Your task to perform on an android device: change timer sound Image 0: 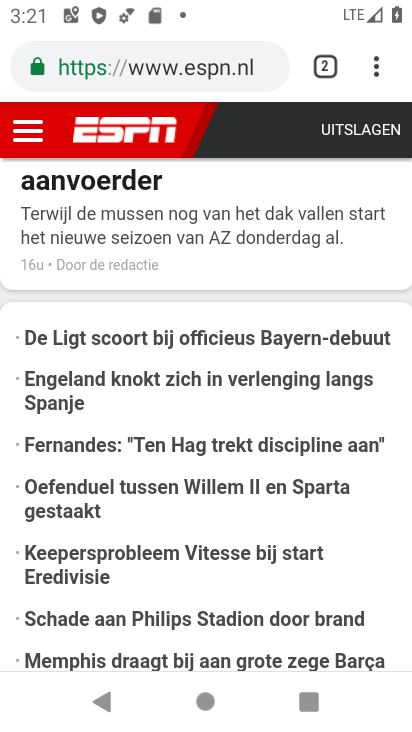
Step 0: press home button
Your task to perform on an android device: change timer sound Image 1: 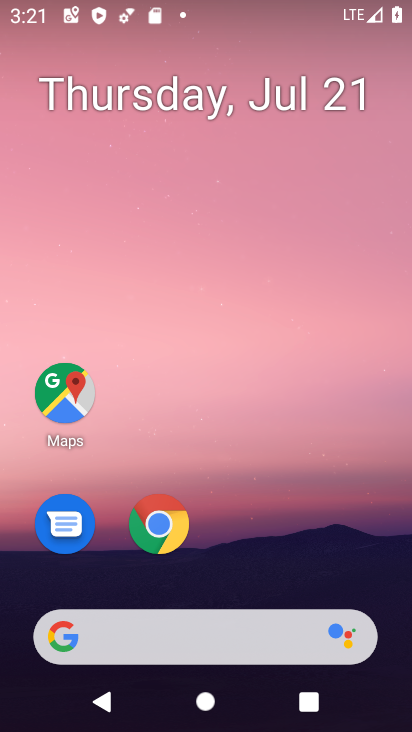
Step 1: drag from (286, 531) to (311, 0)
Your task to perform on an android device: change timer sound Image 2: 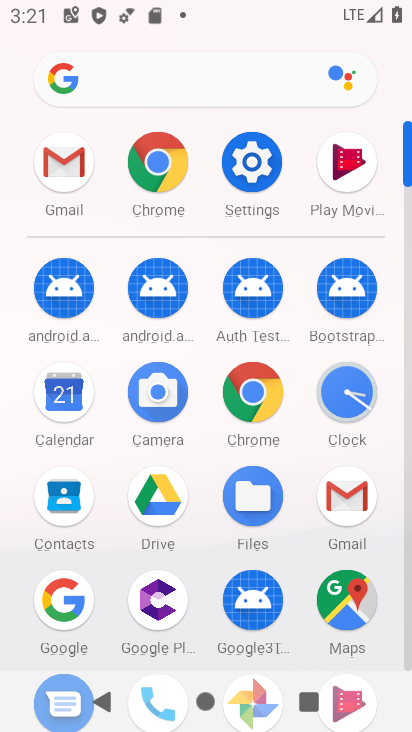
Step 2: click (255, 154)
Your task to perform on an android device: change timer sound Image 3: 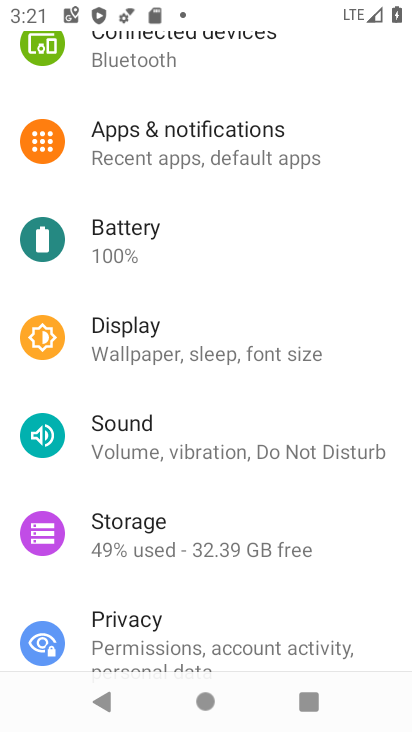
Step 3: press home button
Your task to perform on an android device: change timer sound Image 4: 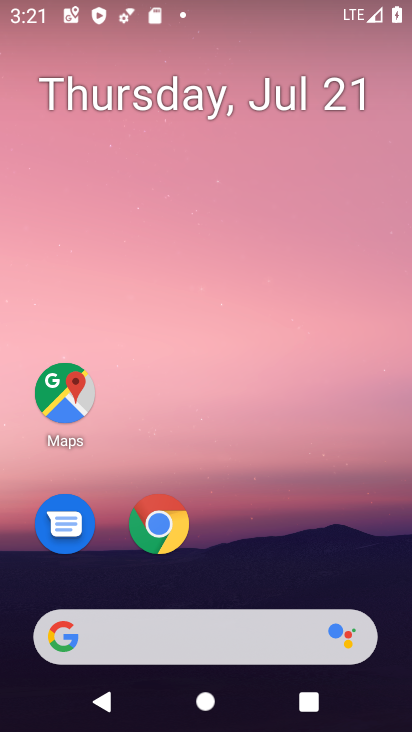
Step 4: drag from (317, 547) to (376, 56)
Your task to perform on an android device: change timer sound Image 5: 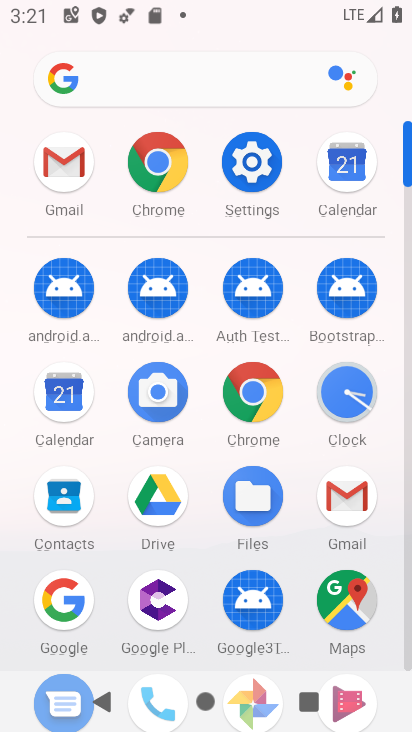
Step 5: click (344, 392)
Your task to perform on an android device: change timer sound Image 6: 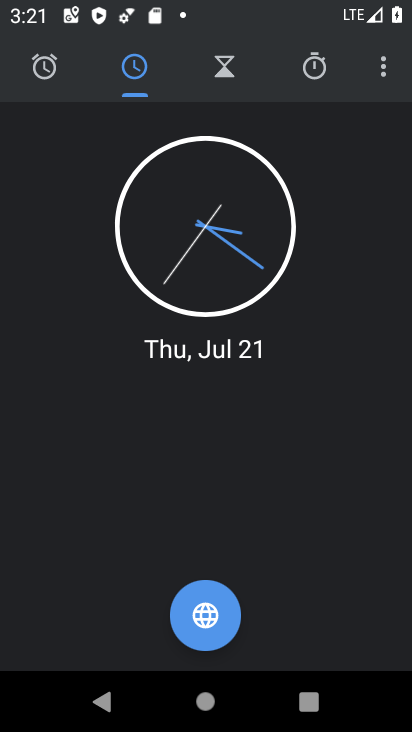
Step 6: click (382, 65)
Your task to perform on an android device: change timer sound Image 7: 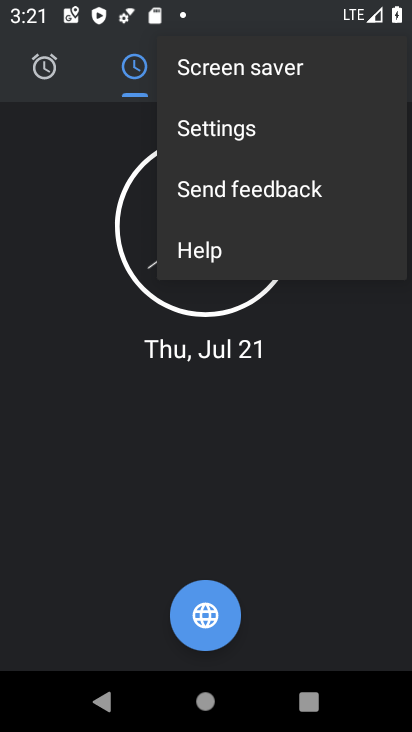
Step 7: click (243, 135)
Your task to perform on an android device: change timer sound Image 8: 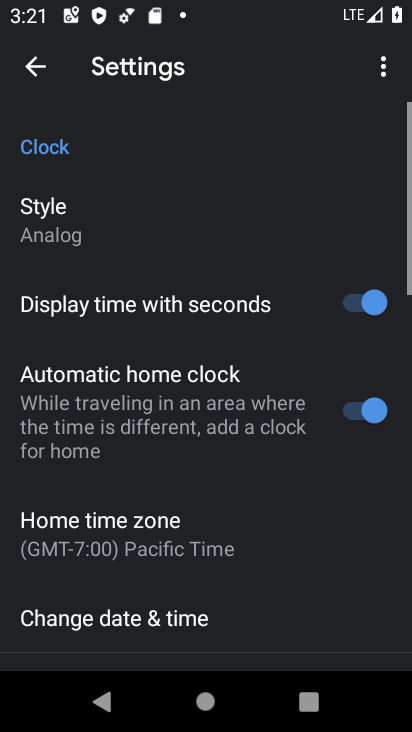
Step 8: drag from (223, 522) to (306, 7)
Your task to perform on an android device: change timer sound Image 9: 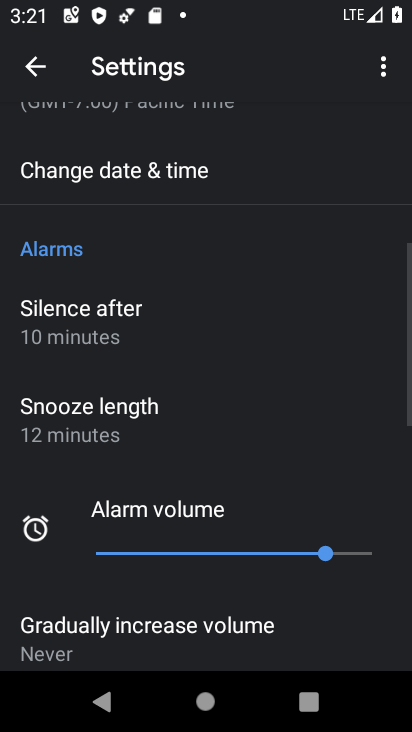
Step 9: drag from (239, 433) to (297, 2)
Your task to perform on an android device: change timer sound Image 10: 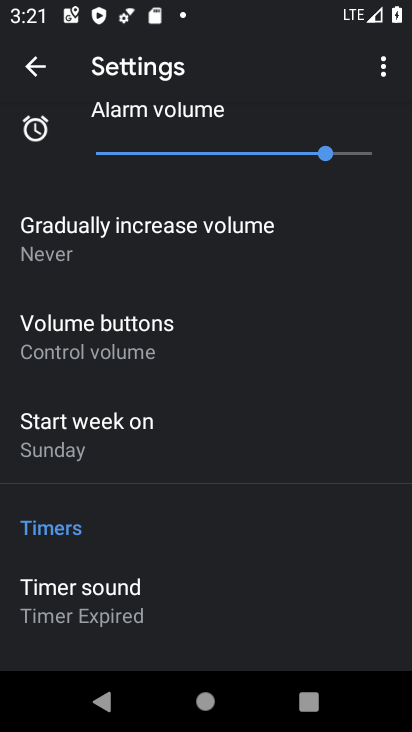
Step 10: drag from (184, 539) to (242, 176)
Your task to perform on an android device: change timer sound Image 11: 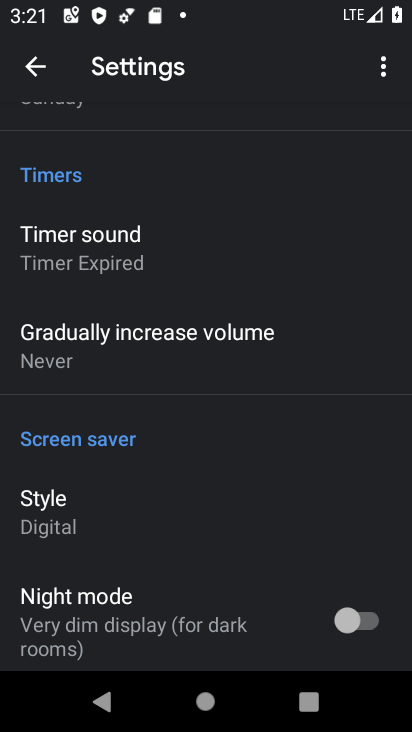
Step 11: click (119, 256)
Your task to perform on an android device: change timer sound Image 12: 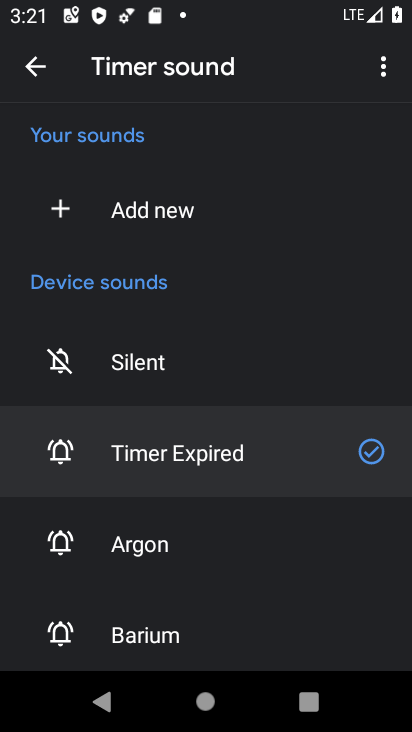
Step 12: click (119, 538)
Your task to perform on an android device: change timer sound Image 13: 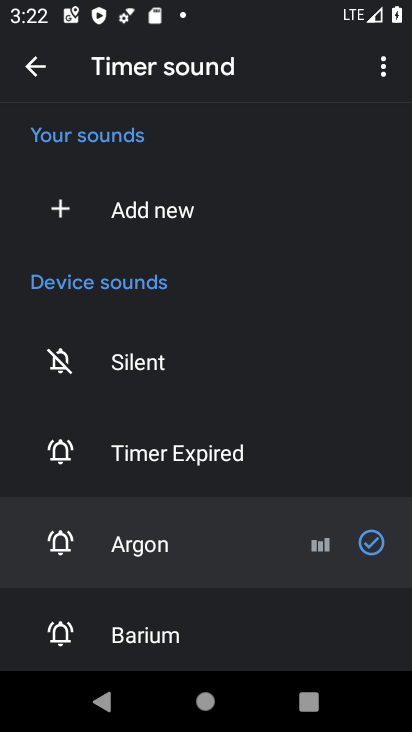
Step 13: task complete